Your task to perform on an android device: open a bookmark in the chrome app Image 0: 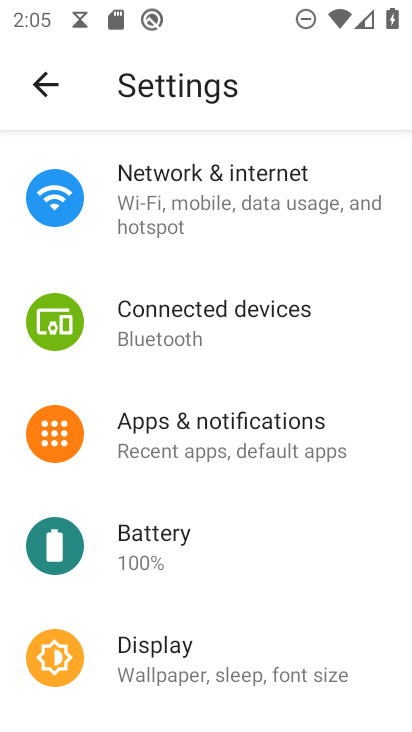
Step 0: press home button
Your task to perform on an android device: open a bookmark in the chrome app Image 1: 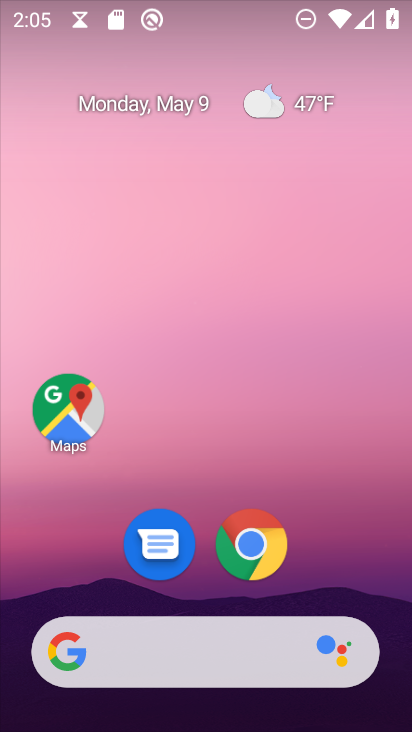
Step 1: click (268, 542)
Your task to perform on an android device: open a bookmark in the chrome app Image 2: 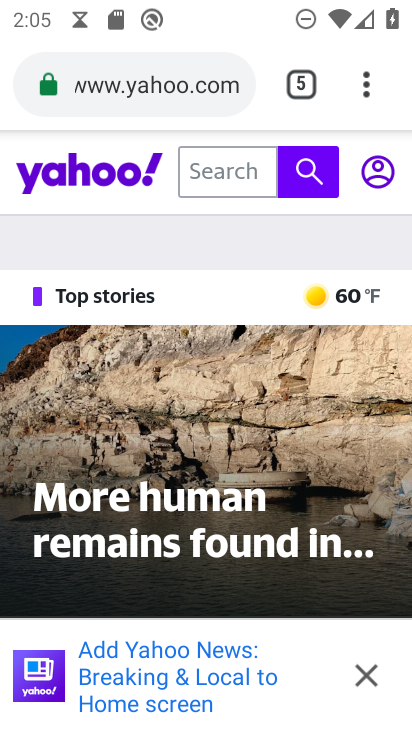
Step 2: task complete